Your task to perform on an android device: toggle location history Image 0: 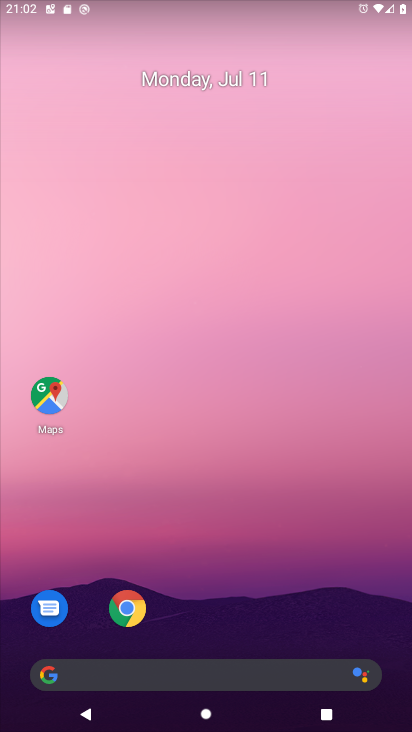
Step 0: drag from (296, 635) to (230, 16)
Your task to perform on an android device: toggle location history Image 1: 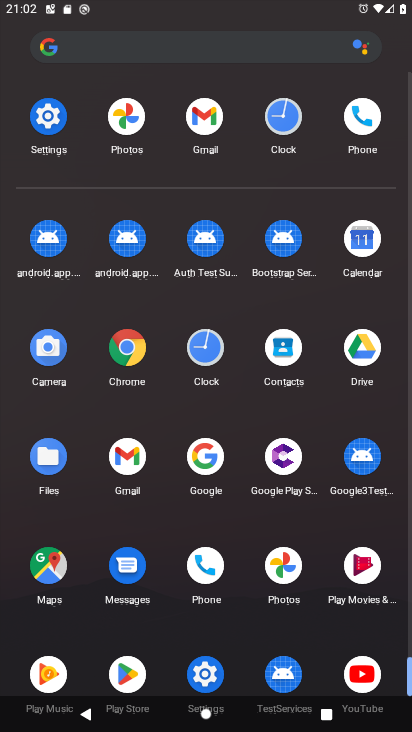
Step 1: click (201, 669)
Your task to perform on an android device: toggle location history Image 2: 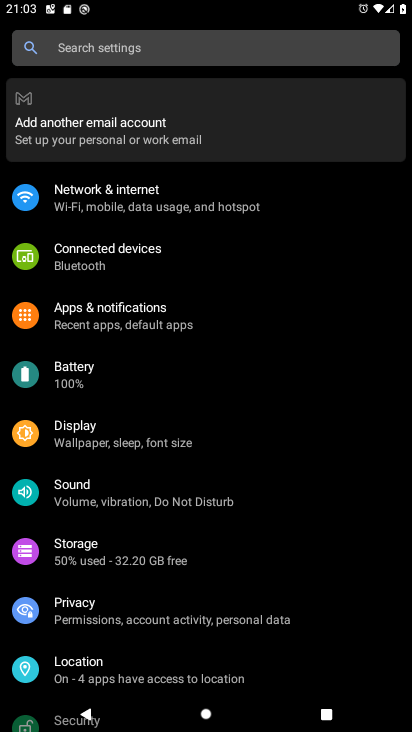
Step 2: click (125, 669)
Your task to perform on an android device: toggle location history Image 3: 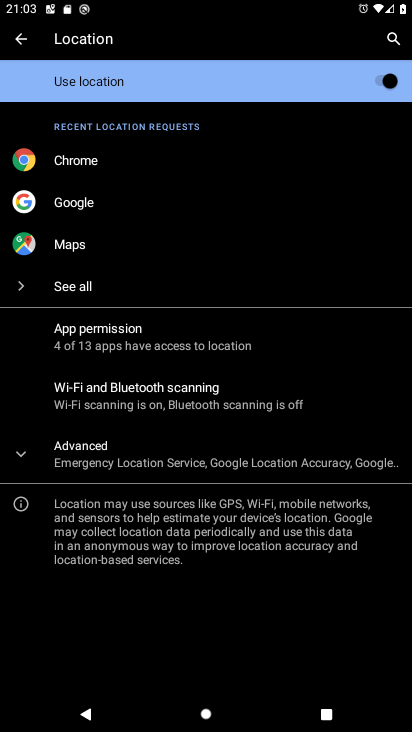
Step 3: click (123, 464)
Your task to perform on an android device: toggle location history Image 4: 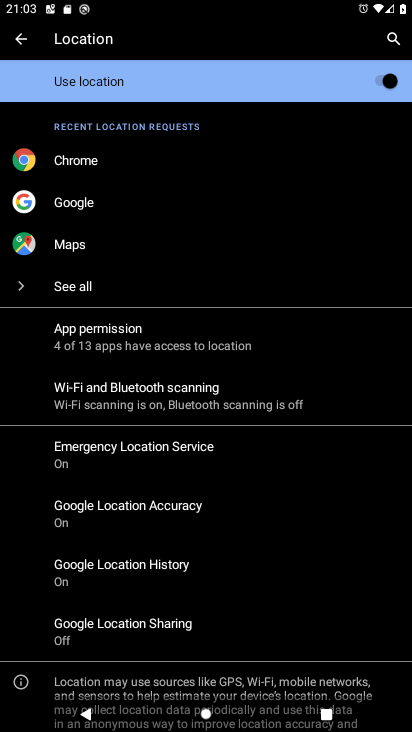
Step 4: click (120, 557)
Your task to perform on an android device: toggle location history Image 5: 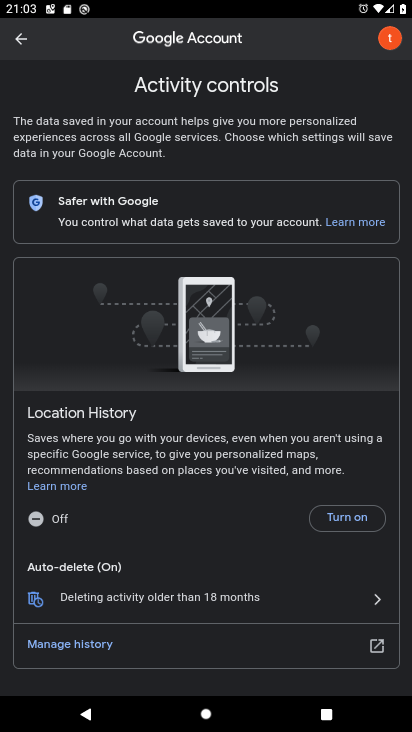
Step 5: click (26, 47)
Your task to perform on an android device: toggle location history Image 6: 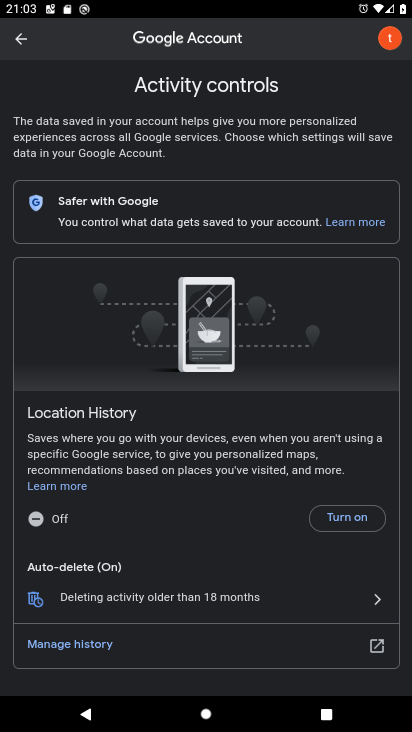
Step 6: task complete